Your task to perform on an android device: refresh tabs in the chrome app Image 0: 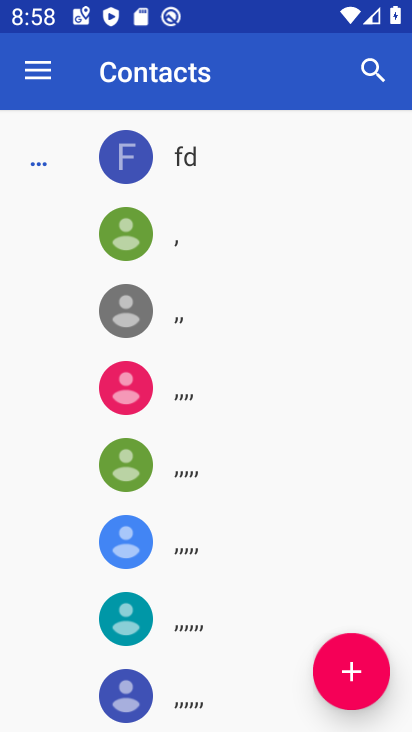
Step 0: press home button
Your task to perform on an android device: refresh tabs in the chrome app Image 1: 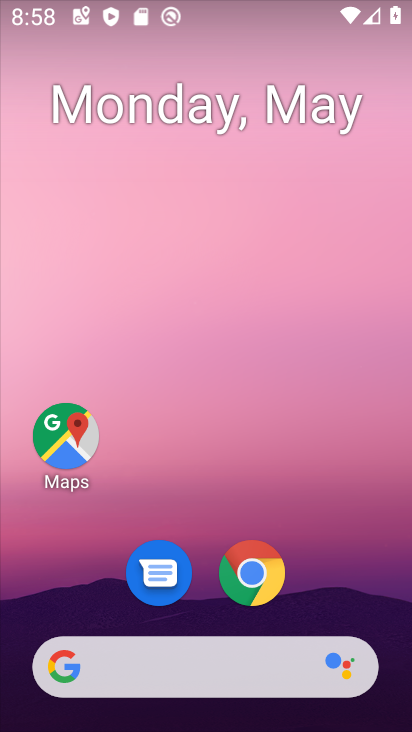
Step 1: click (256, 582)
Your task to perform on an android device: refresh tabs in the chrome app Image 2: 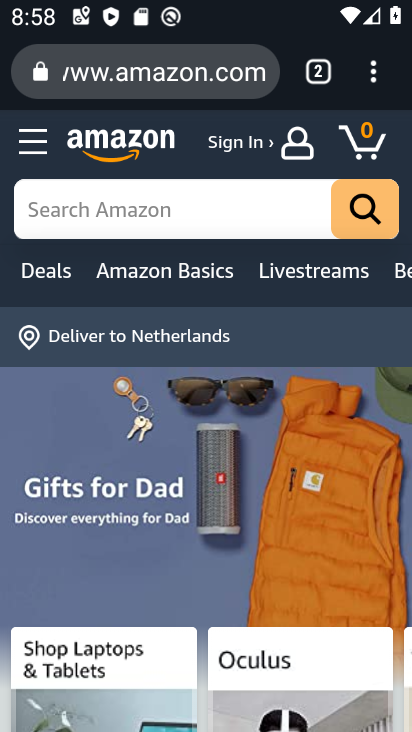
Step 2: click (365, 66)
Your task to perform on an android device: refresh tabs in the chrome app Image 3: 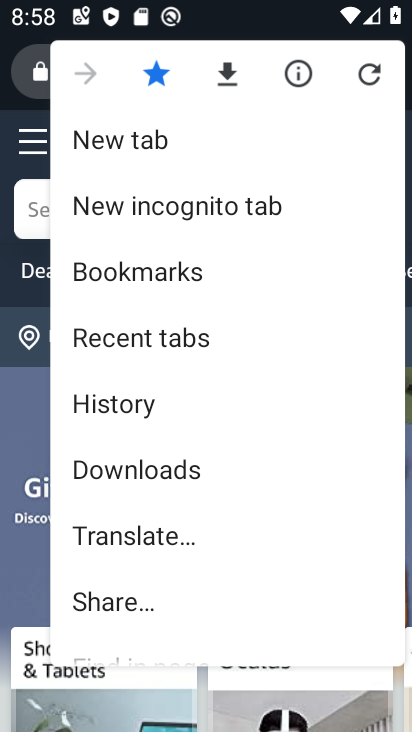
Step 3: click (387, 78)
Your task to perform on an android device: refresh tabs in the chrome app Image 4: 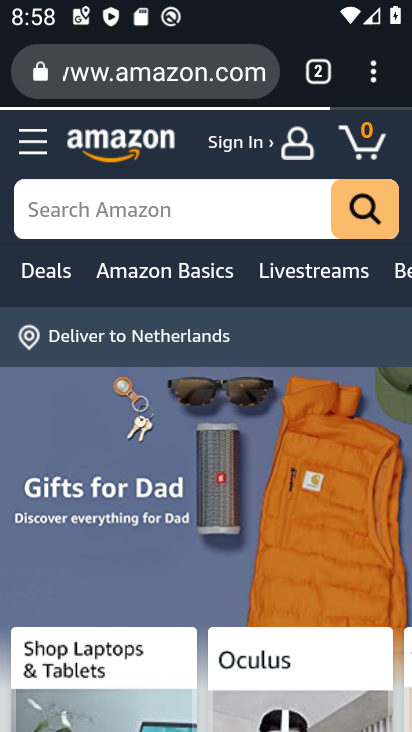
Step 4: task complete